Your task to perform on an android device: Go to Google Image 0: 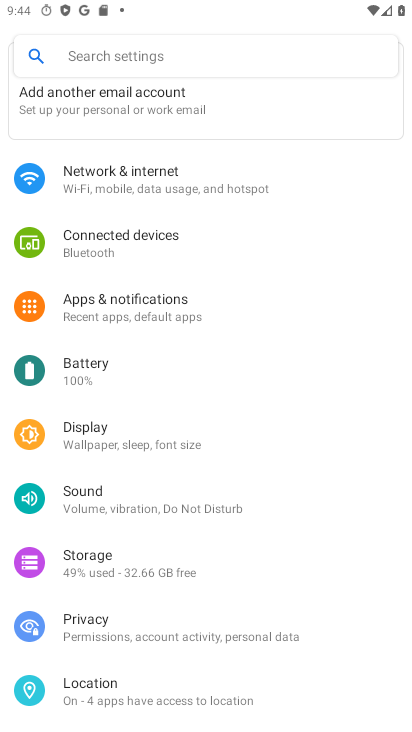
Step 0: press home button
Your task to perform on an android device: Go to Google Image 1: 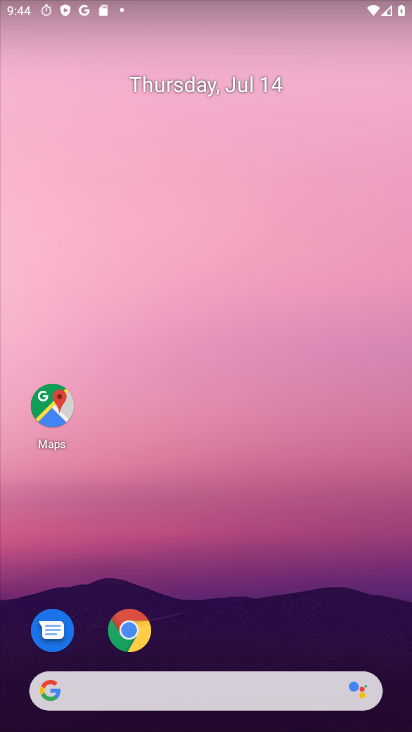
Step 1: click (98, 692)
Your task to perform on an android device: Go to Google Image 2: 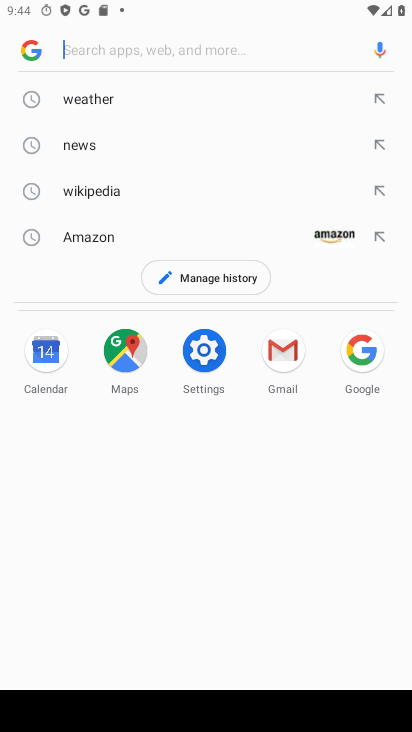
Step 2: task complete